Your task to perform on an android device: turn vacation reply on in the gmail app Image 0: 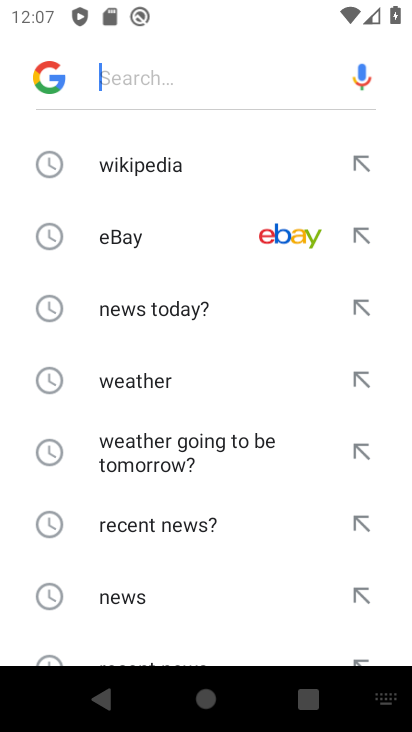
Step 0: press home button
Your task to perform on an android device: turn vacation reply on in the gmail app Image 1: 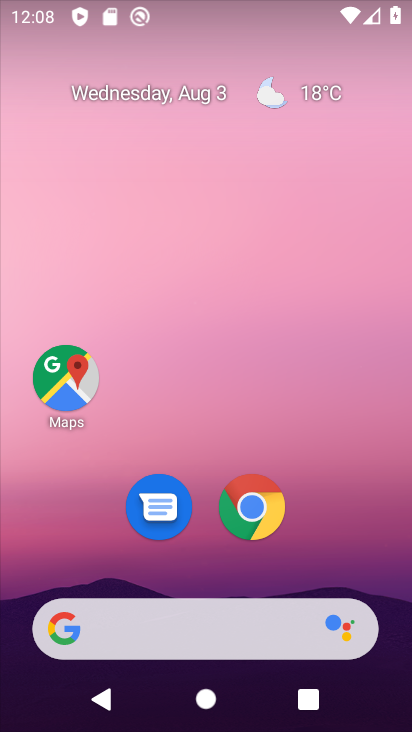
Step 1: drag from (218, 641) to (293, 45)
Your task to perform on an android device: turn vacation reply on in the gmail app Image 2: 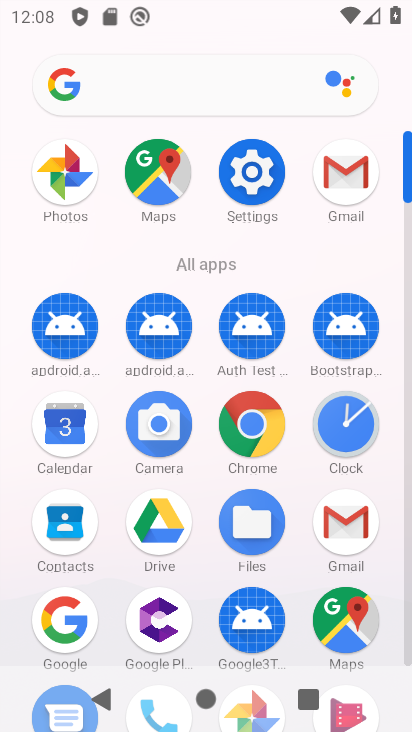
Step 2: click (348, 512)
Your task to perform on an android device: turn vacation reply on in the gmail app Image 3: 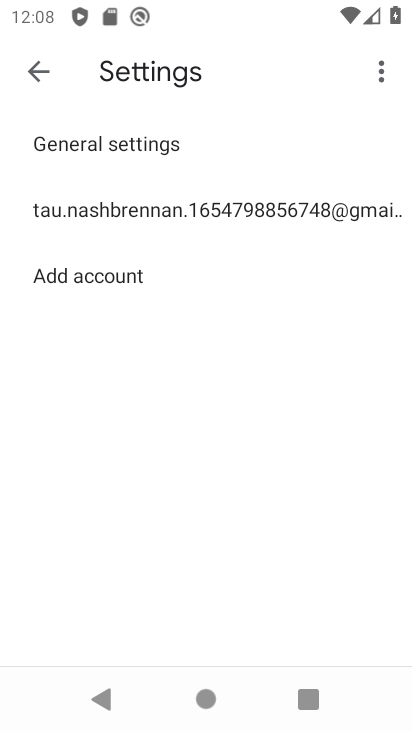
Step 3: click (108, 205)
Your task to perform on an android device: turn vacation reply on in the gmail app Image 4: 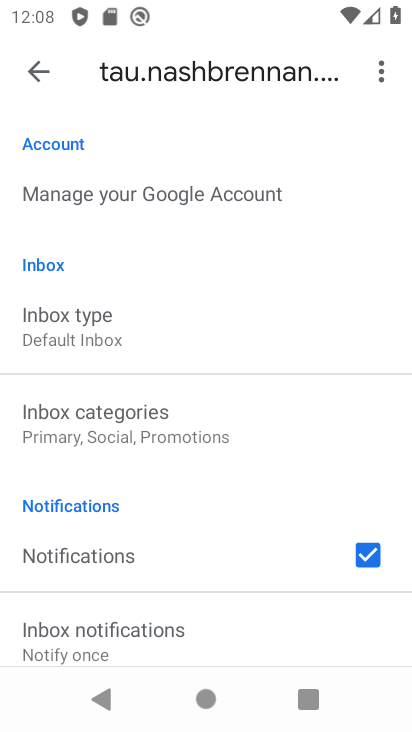
Step 4: drag from (252, 601) to (222, 90)
Your task to perform on an android device: turn vacation reply on in the gmail app Image 5: 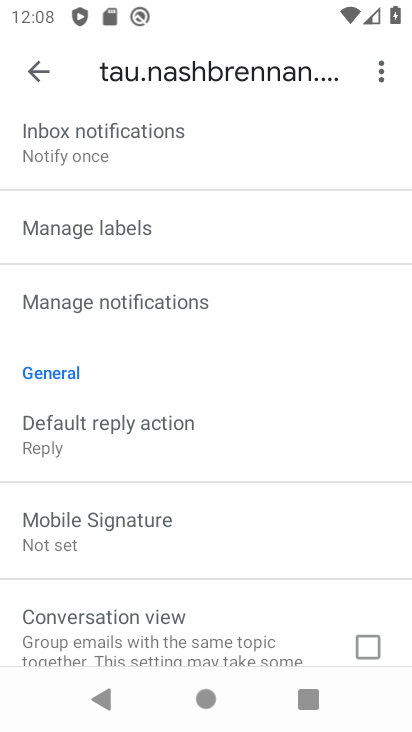
Step 5: drag from (261, 518) to (201, 129)
Your task to perform on an android device: turn vacation reply on in the gmail app Image 6: 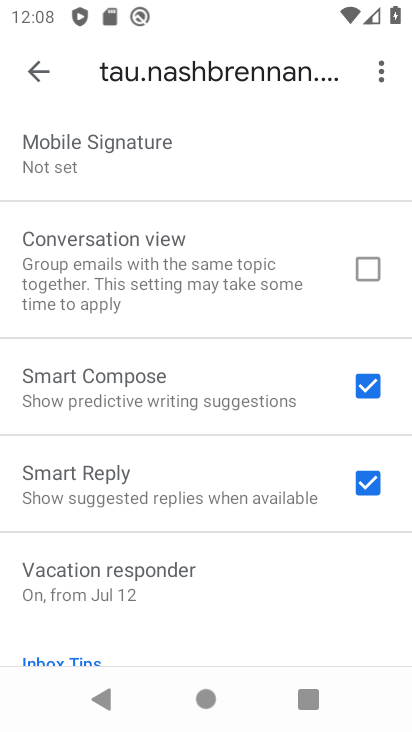
Step 6: click (168, 576)
Your task to perform on an android device: turn vacation reply on in the gmail app Image 7: 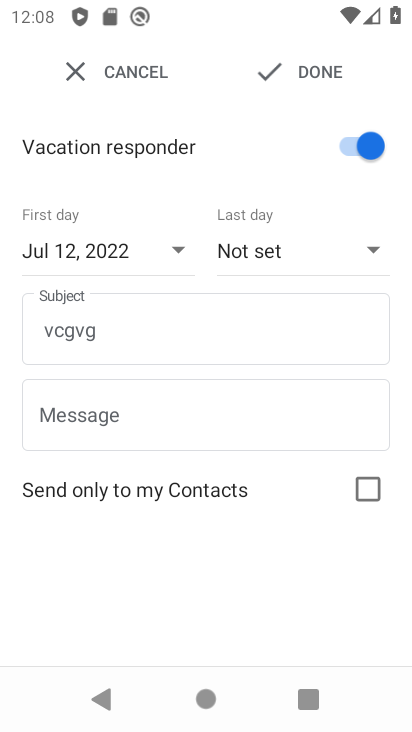
Step 7: click (103, 68)
Your task to perform on an android device: turn vacation reply on in the gmail app Image 8: 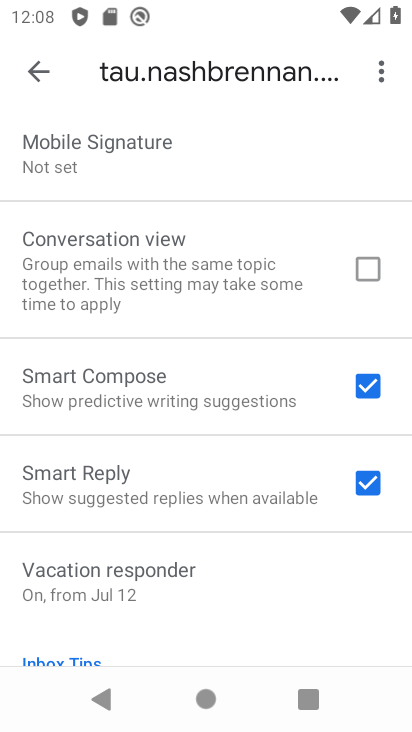
Step 8: task complete